Your task to perform on an android device: Go to wifi settings Image 0: 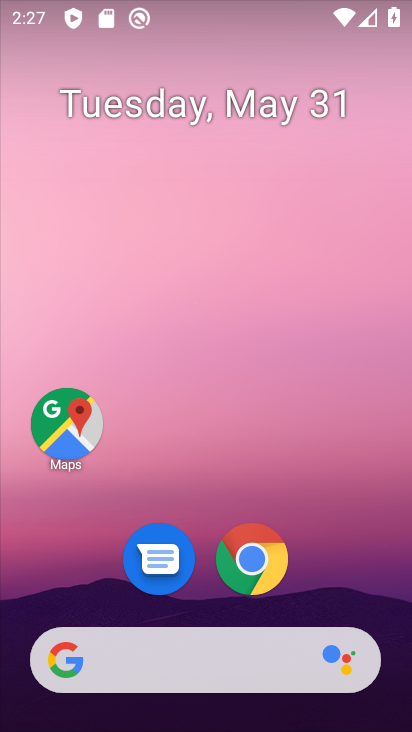
Step 0: drag from (298, 456) to (236, 103)
Your task to perform on an android device: Go to wifi settings Image 1: 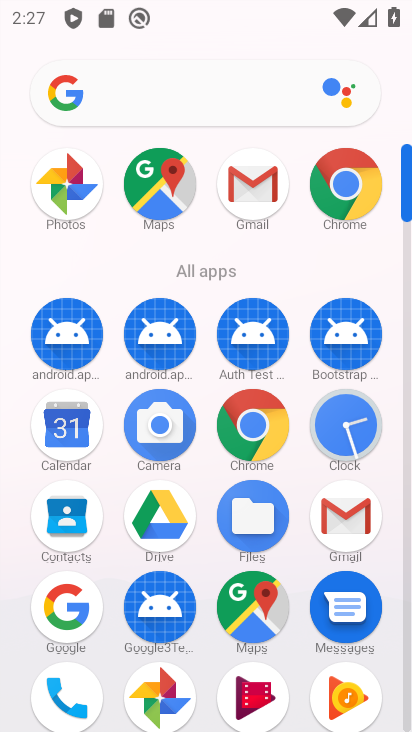
Step 1: drag from (194, 265) to (150, 40)
Your task to perform on an android device: Go to wifi settings Image 2: 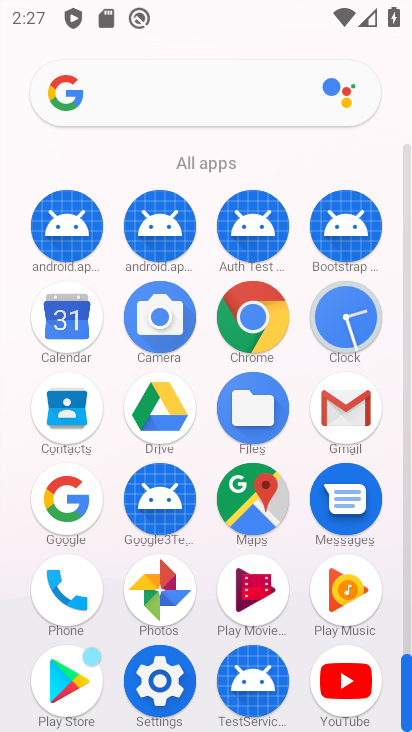
Step 2: click (190, 681)
Your task to perform on an android device: Go to wifi settings Image 3: 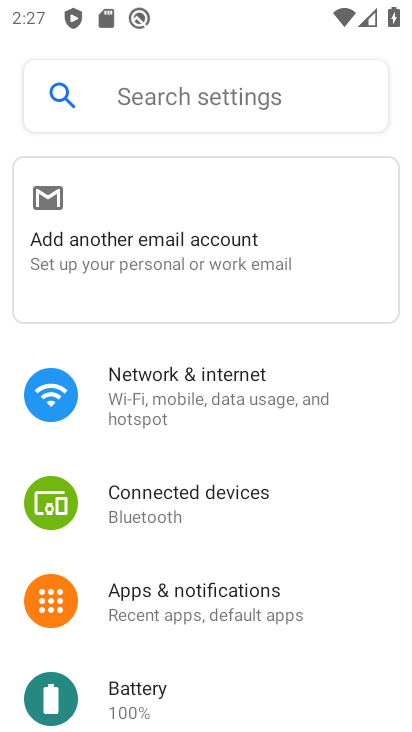
Step 3: click (148, 402)
Your task to perform on an android device: Go to wifi settings Image 4: 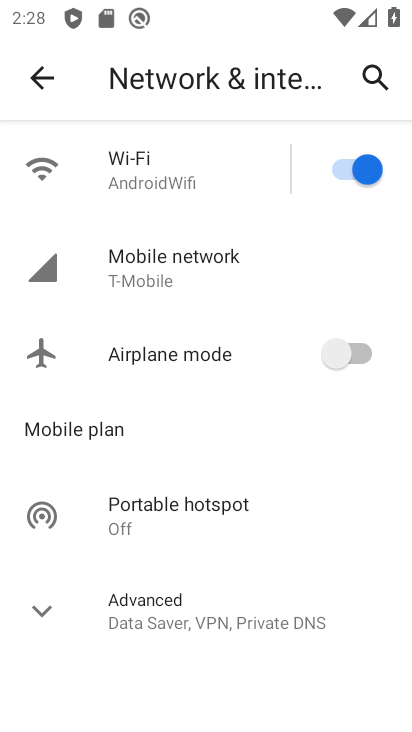
Step 4: click (141, 175)
Your task to perform on an android device: Go to wifi settings Image 5: 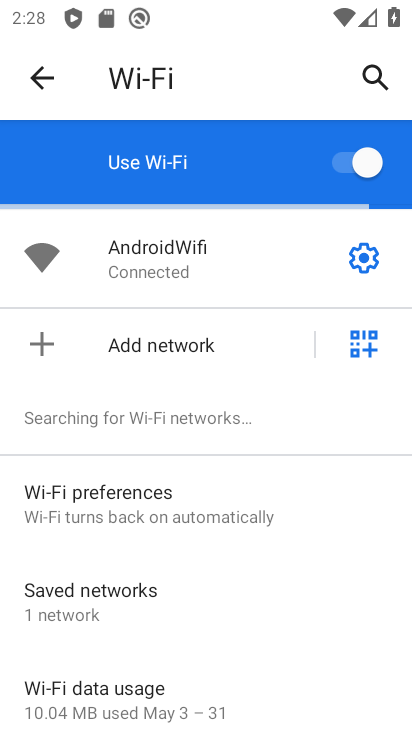
Step 5: task complete